Your task to perform on an android device: Find coffee shops on Maps Image 0: 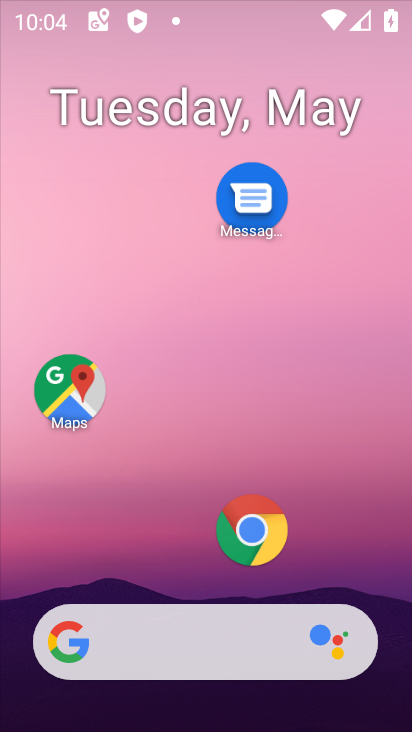
Step 0: click (151, 218)
Your task to perform on an android device: Find coffee shops on Maps Image 1: 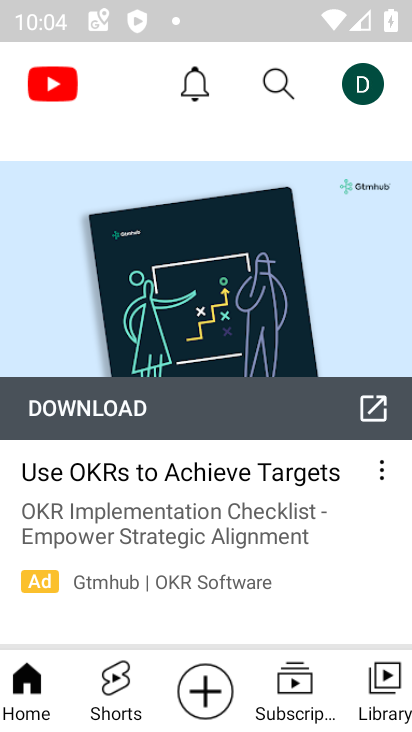
Step 1: press home button
Your task to perform on an android device: Find coffee shops on Maps Image 2: 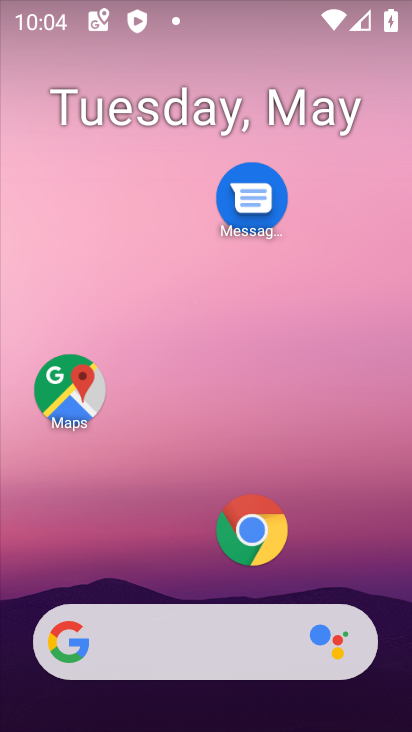
Step 2: drag from (167, 543) to (172, 246)
Your task to perform on an android device: Find coffee shops on Maps Image 3: 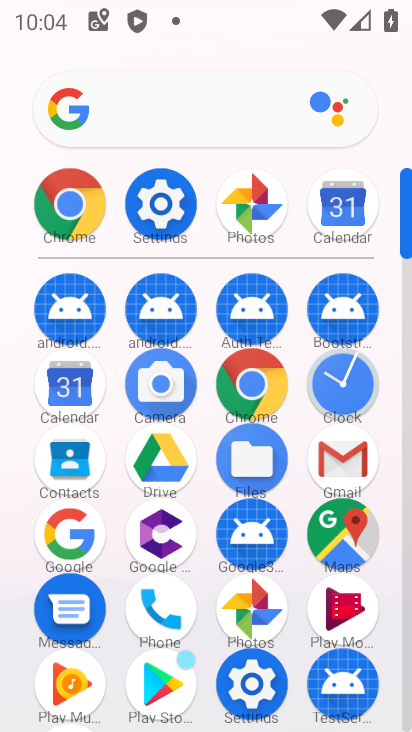
Step 3: click (347, 548)
Your task to perform on an android device: Find coffee shops on Maps Image 4: 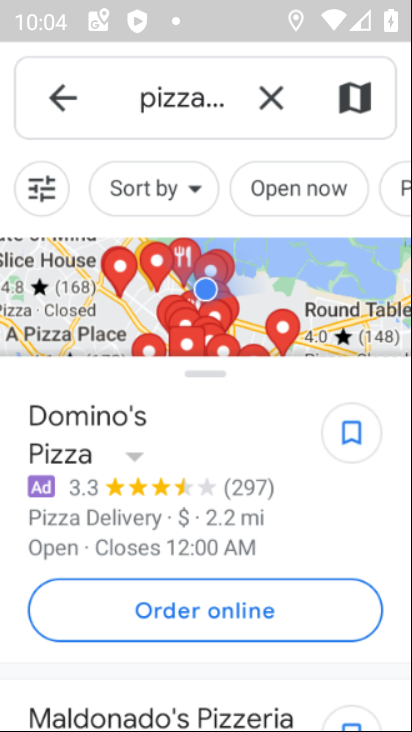
Step 4: click (276, 103)
Your task to perform on an android device: Find coffee shops on Maps Image 5: 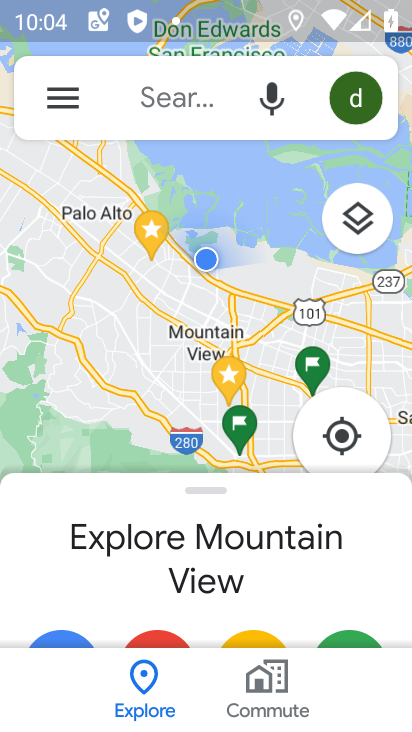
Step 5: click (176, 93)
Your task to perform on an android device: Find coffee shops on Maps Image 6: 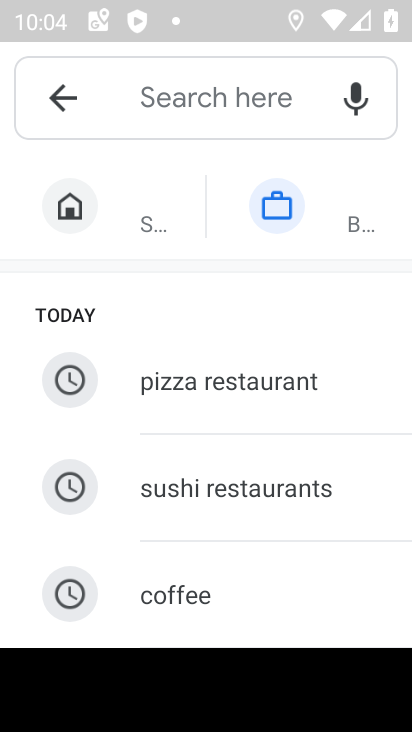
Step 6: drag from (299, 602) to (273, 311)
Your task to perform on an android device: Find coffee shops on Maps Image 7: 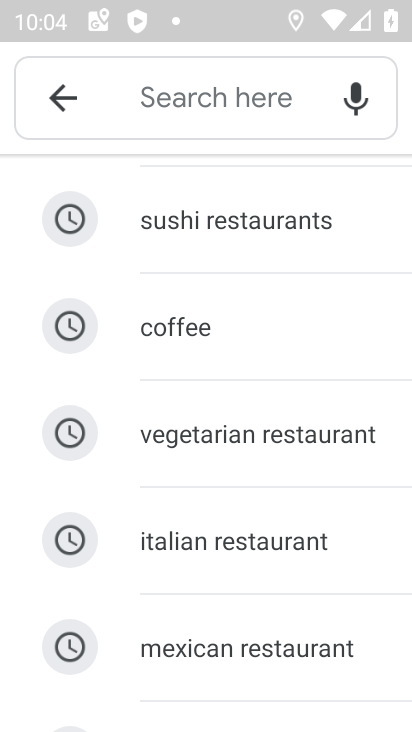
Step 7: drag from (251, 619) to (203, 365)
Your task to perform on an android device: Find coffee shops on Maps Image 8: 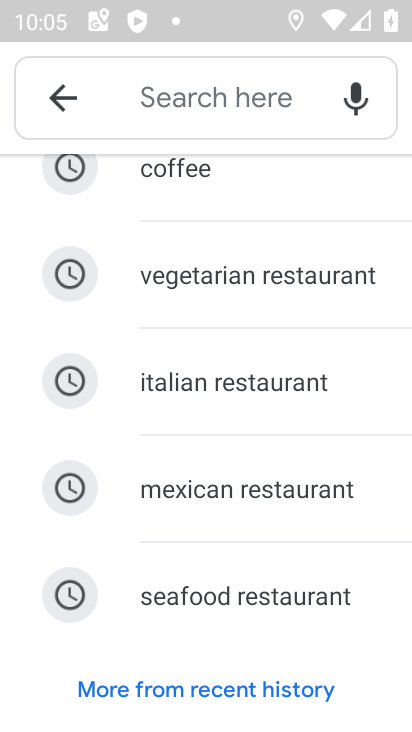
Step 8: click (191, 104)
Your task to perform on an android device: Find coffee shops on Maps Image 9: 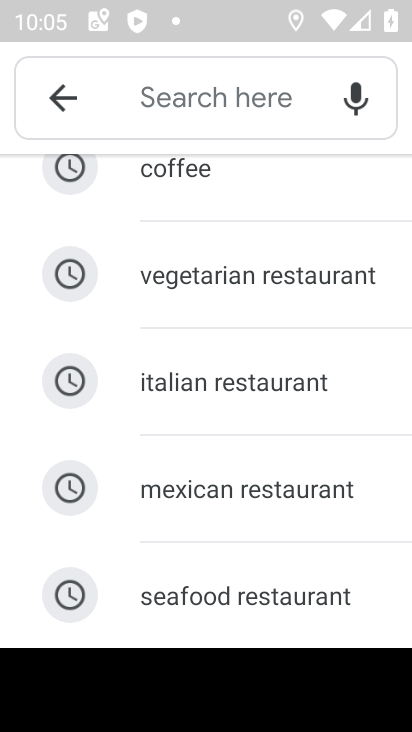
Step 9: type "coffee shops"
Your task to perform on an android device: Find coffee shops on Maps Image 10: 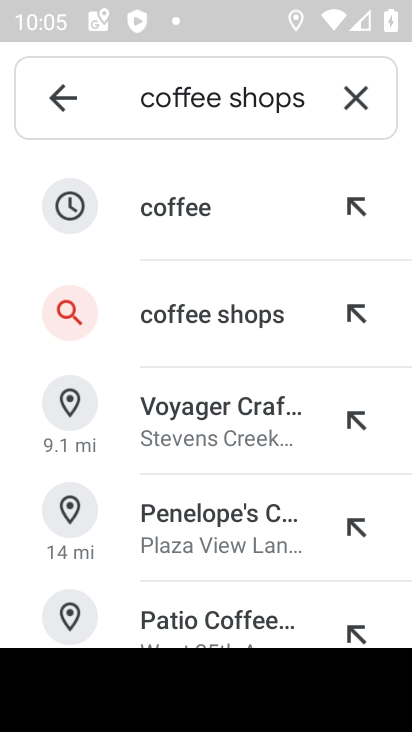
Step 10: click (248, 310)
Your task to perform on an android device: Find coffee shops on Maps Image 11: 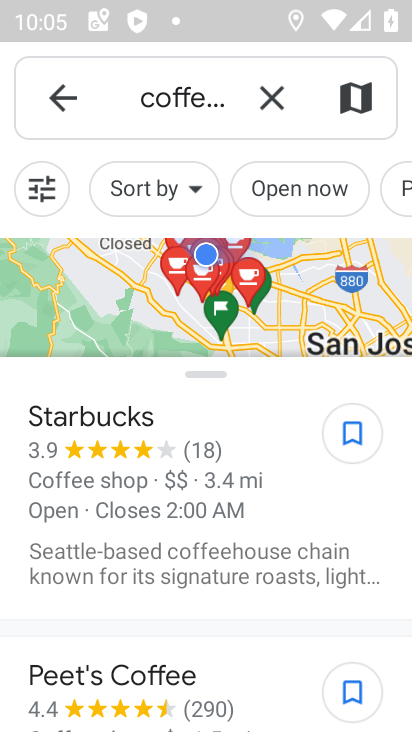
Step 11: task complete